Your task to perform on an android device: change timer sound Image 0: 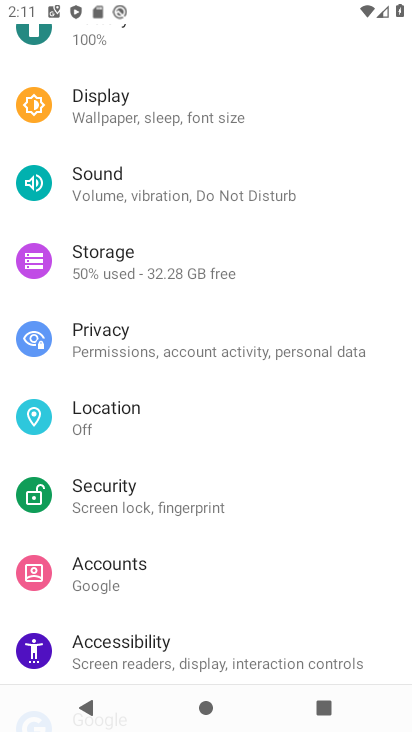
Step 0: press home button
Your task to perform on an android device: change timer sound Image 1: 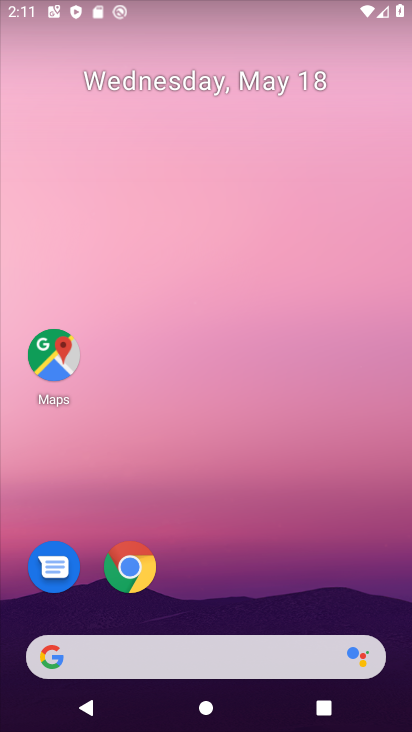
Step 1: drag from (278, 541) to (254, 151)
Your task to perform on an android device: change timer sound Image 2: 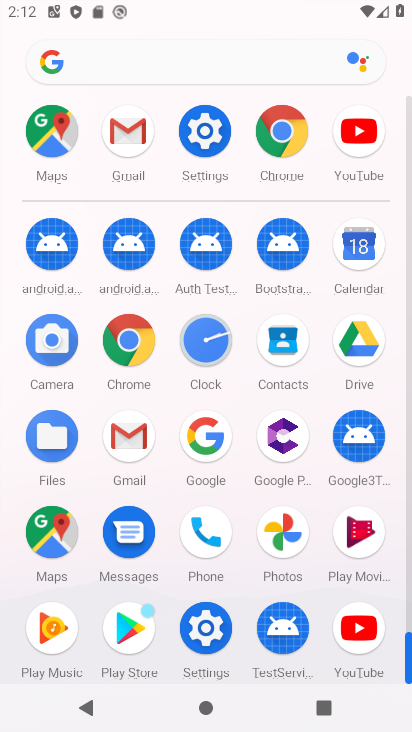
Step 2: click (209, 334)
Your task to perform on an android device: change timer sound Image 3: 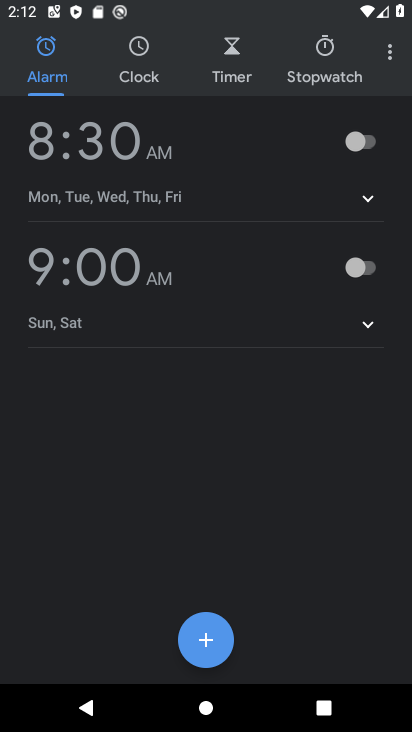
Step 3: drag from (391, 50) to (279, 117)
Your task to perform on an android device: change timer sound Image 4: 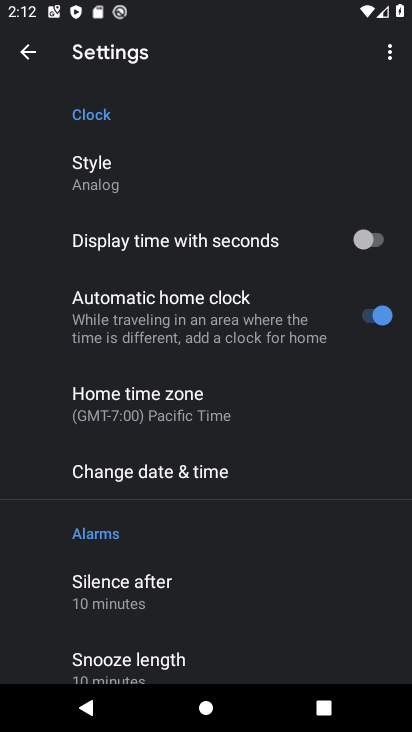
Step 4: drag from (240, 650) to (266, 282)
Your task to perform on an android device: change timer sound Image 5: 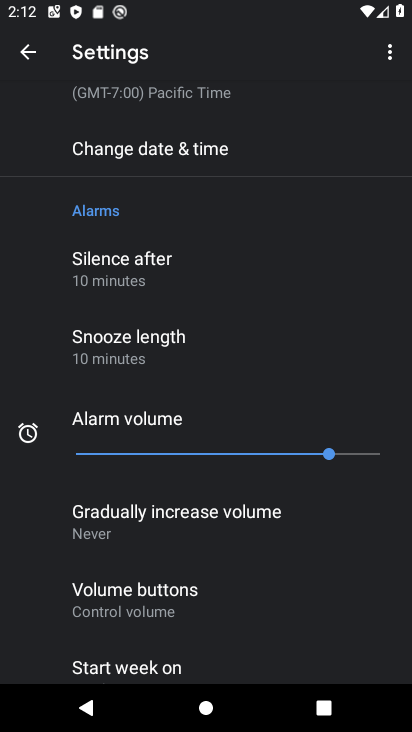
Step 5: drag from (271, 567) to (281, 242)
Your task to perform on an android device: change timer sound Image 6: 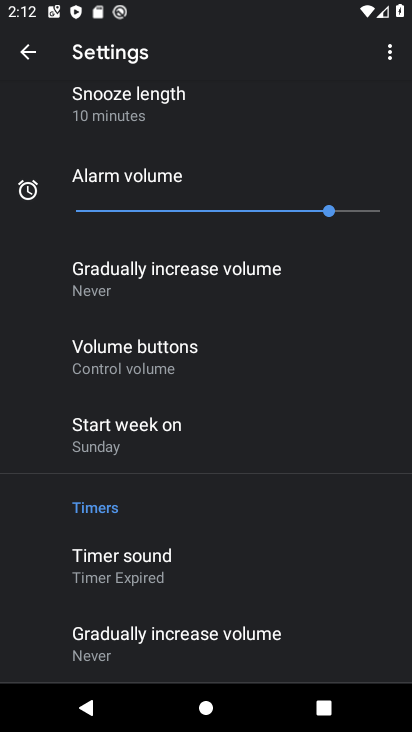
Step 6: click (140, 576)
Your task to perform on an android device: change timer sound Image 7: 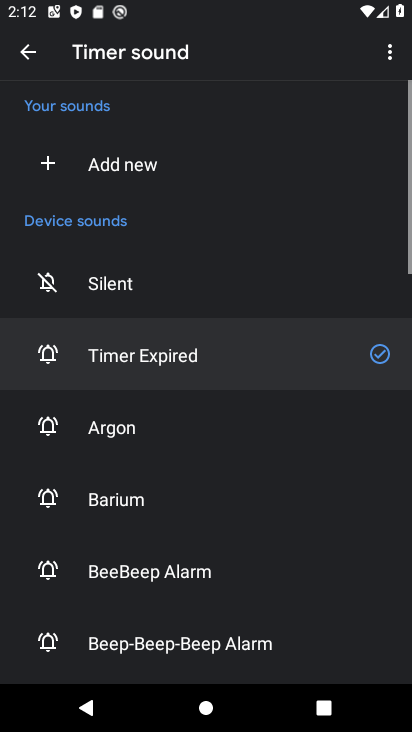
Step 7: click (180, 437)
Your task to perform on an android device: change timer sound Image 8: 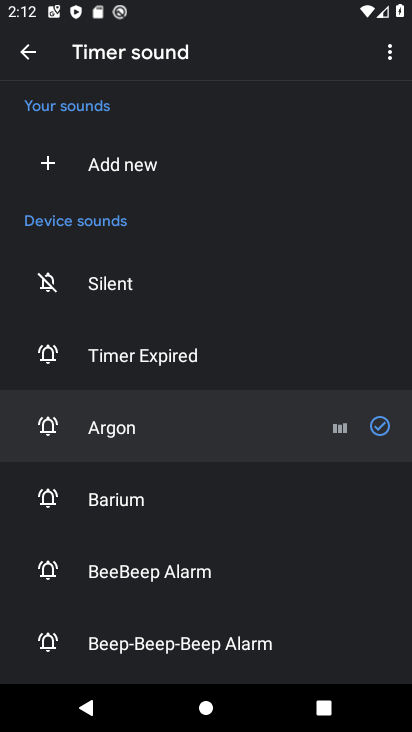
Step 8: task complete